Your task to perform on an android device: Go to Google maps Image 0: 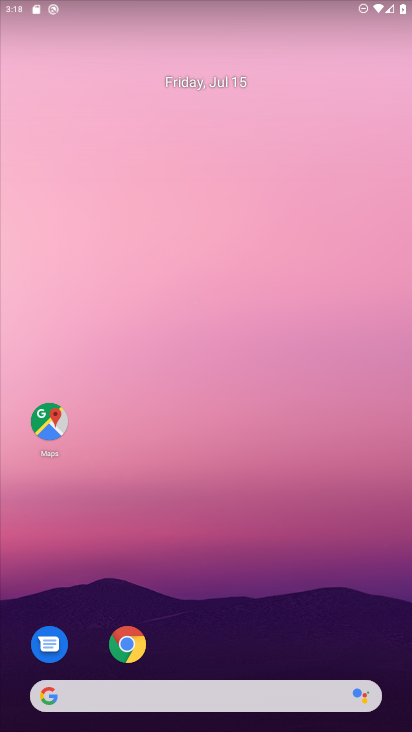
Step 0: click (54, 423)
Your task to perform on an android device: Go to Google maps Image 1: 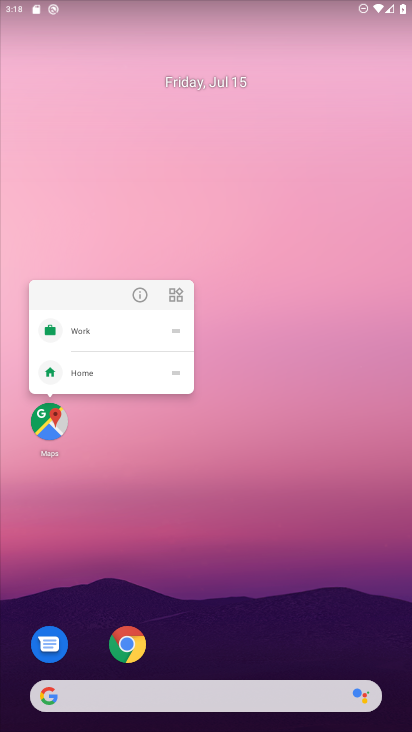
Step 1: click (55, 422)
Your task to perform on an android device: Go to Google maps Image 2: 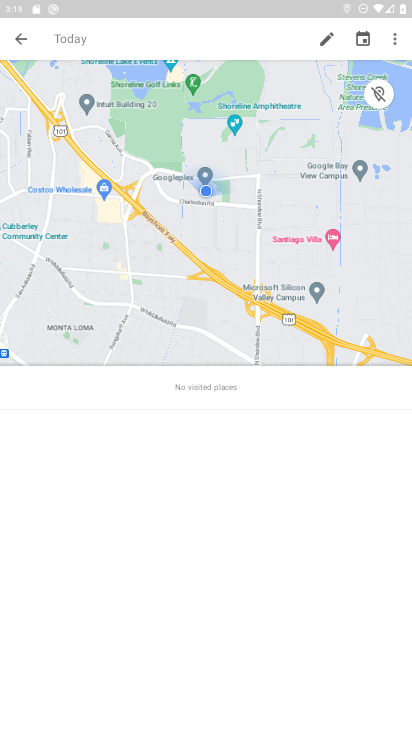
Step 2: task complete